Your task to perform on an android device: Open calendar and show me the second week of next month Image 0: 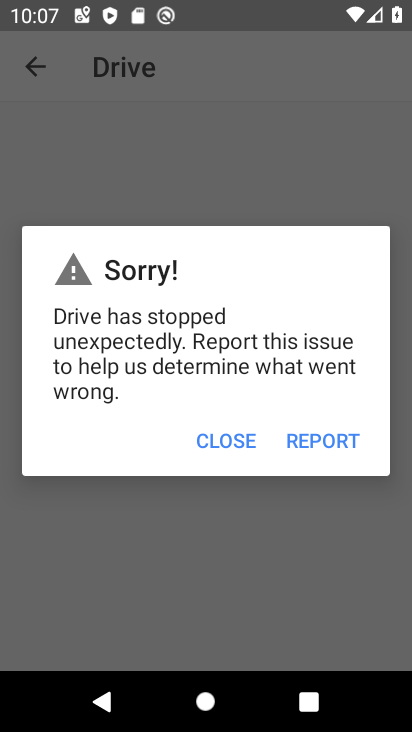
Step 0: press home button
Your task to perform on an android device: Open calendar and show me the second week of next month Image 1: 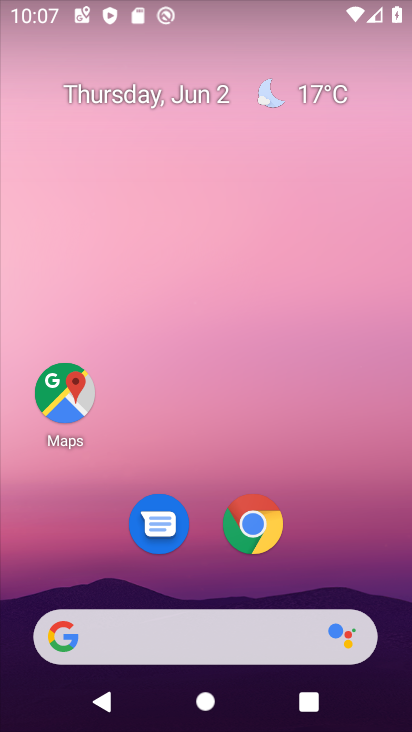
Step 1: drag from (212, 449) to (227, 17)
Your task to perform on an android device: Open calendar and show me the second week of next month Image 2: 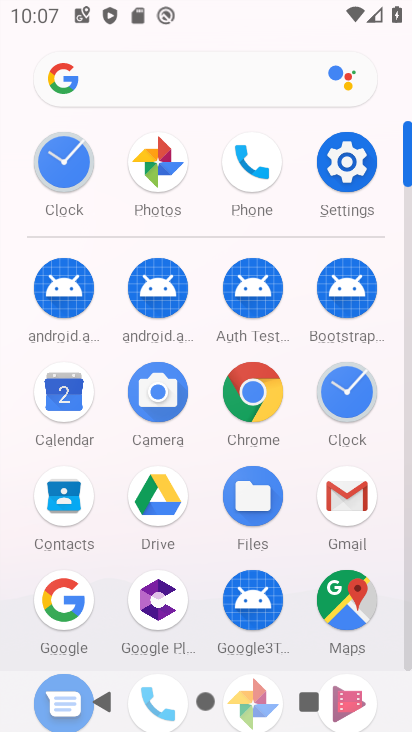
Step 2: click (63, 394)
Your task to perform on an android device: Open calendar and show me the second week of next month Image 3: 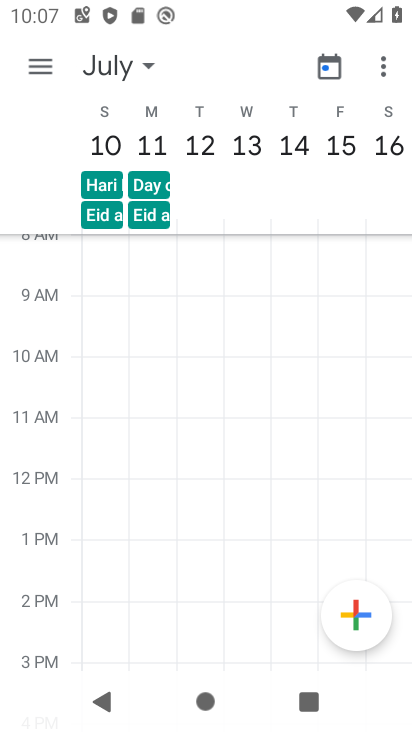
Step 3: task complete